Your task to perform on an android device: Is it going to rain this weekend? Image 0: 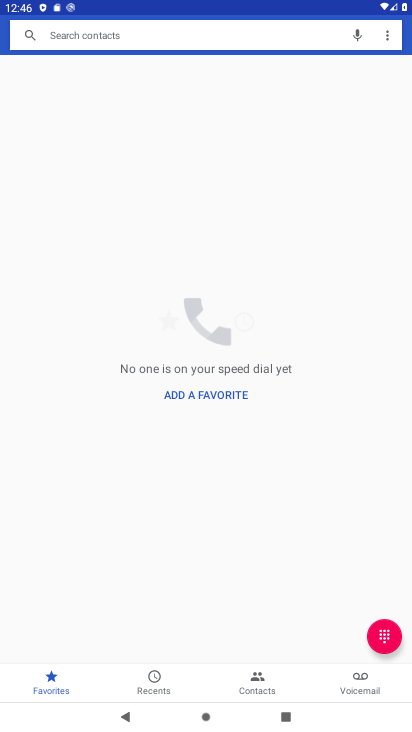
Step 0: press home button
Your task to perform on an android device: Is it going to rain this weekend? Image 1: 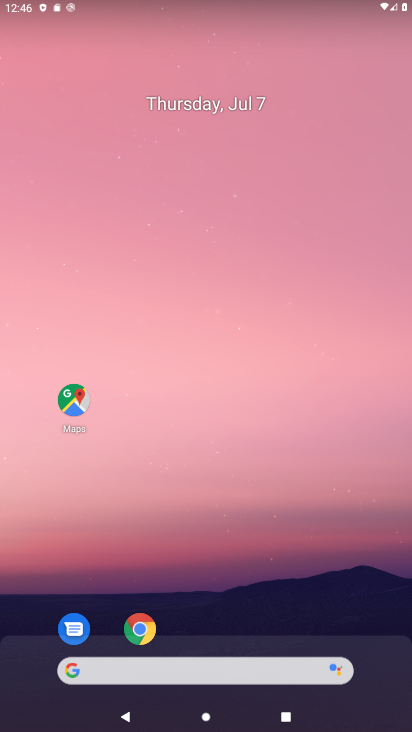
Step 1: drag from (199, 628) to (268, 53)
Your task to perform on an android device: Is it going to rain this weekend? Image 2: 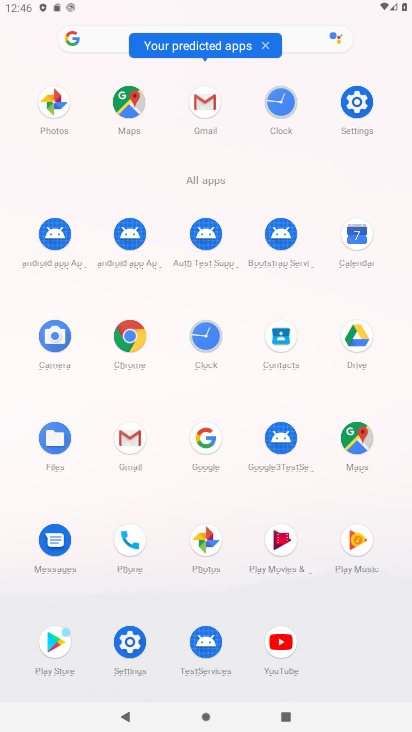
Step 2: click (203, 435)
Your task to perform on an android device: Is it going to rain this weekend? Image 3: 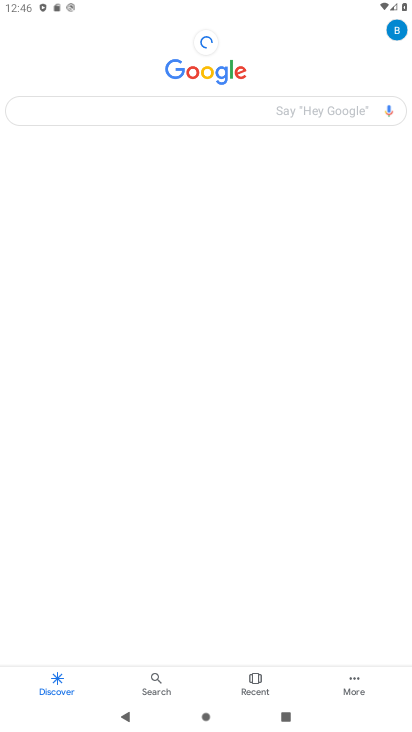
Step 3: click (155, 102)
Your task to perform on an android device: Is it going to rain this weekend? Image 4: 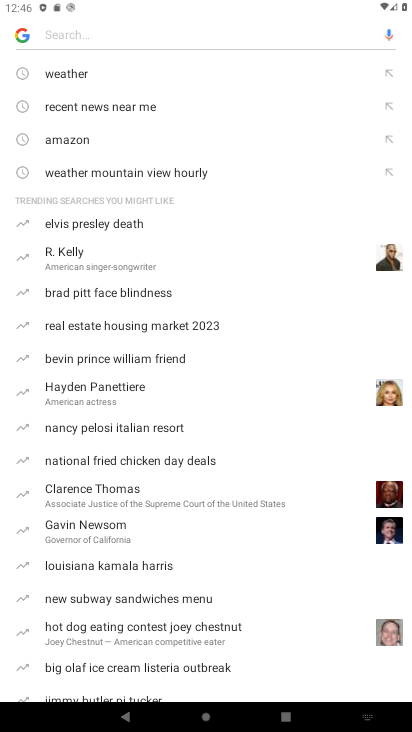
Step 4: type "rain this weekend"
Your task to perform on an android device: Is it going to rain this weekend? Image 5: 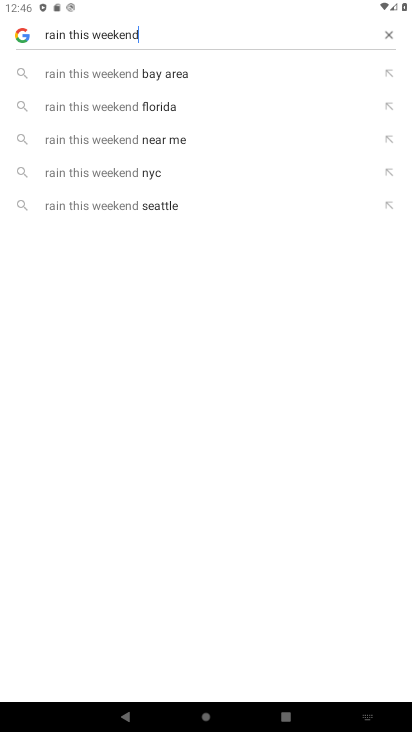
Step 5: click (112, 138)
Your task to perform on an android device: Is it going to rain this weekend? Image 6: 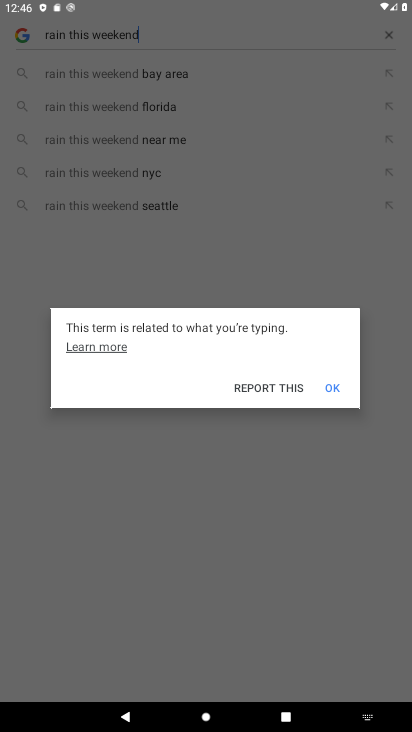
Step 6: click (325, 389)
Your task to perform on an android device: Is it going to rain this weekend? Image 7: 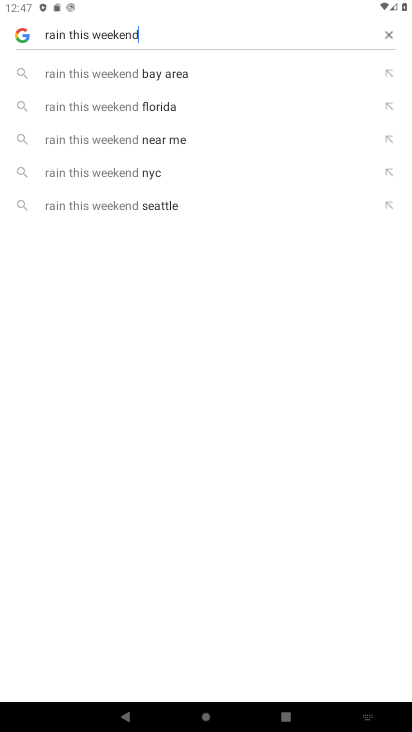
Step 7: click (173, 139)
Your task to perform on an android device: Is it going to rain this weekend? Image 8: 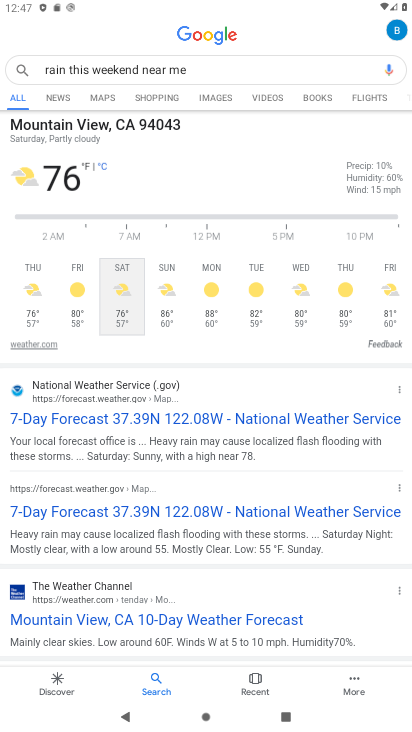
Step 8: task complete